Your task to perform on an android device: open wifi settings Image 0: 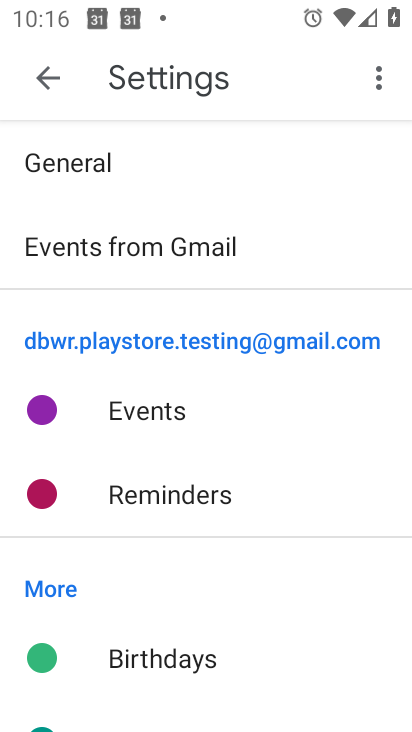
Step 0: press home button
Your task to perform on an android device: open wifi settings Image 1: 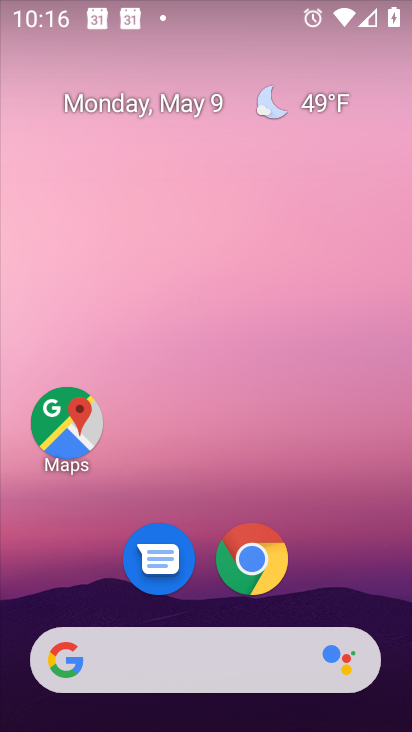
Step 1: drag from (209, 721) to (212, 236)
Your task to perform on an android device: open wifi settings Image 2: 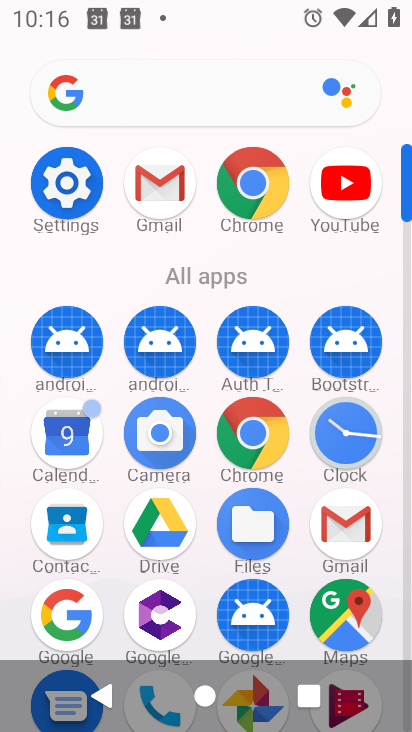
Step 2: click (64, 176)
Your task to perform on an android device: open wifi settings Image 3: 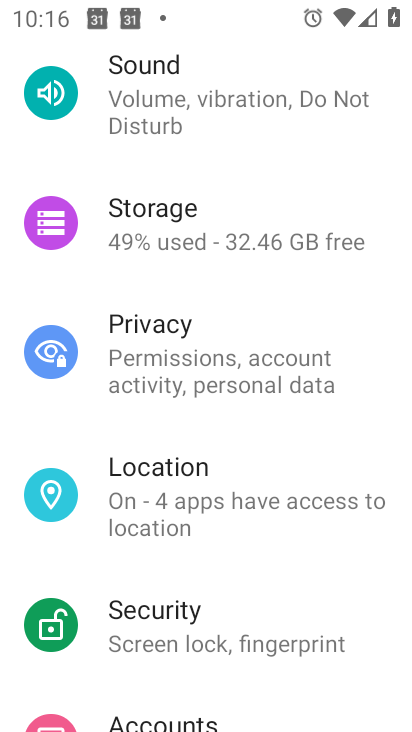
Step 3: drag from (308, 158) to (282, 553)
Your task to perform on an android device: open wifi settings Image 4: 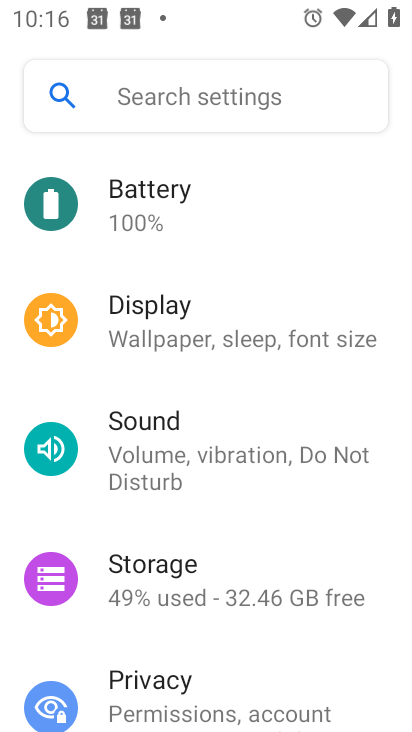
Step 4: drag from (279, 168) to (277, 603)
Your task to perform on an android device: open wifi settings Image 5: 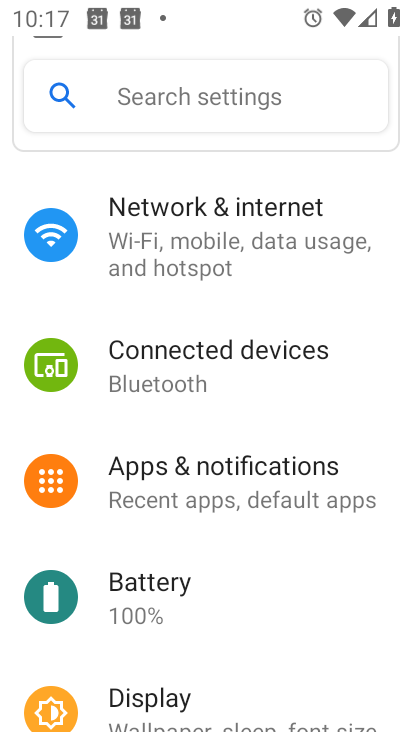
Step 5: click (157, 226)
Your task to perform on an android device: open wifi settings Image 6: 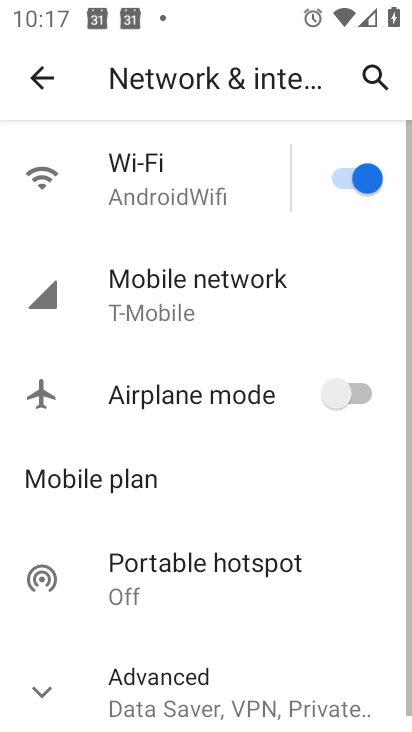
Step 6: click (155, 168)
Your task to perform on an android device: open wifi settings Image 7: 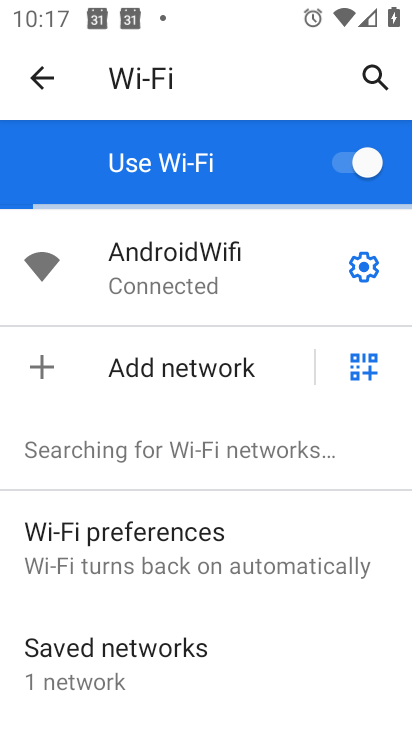
Step 7: task complete